Your task to perform on an android device: turn off airplane mode Image 0: 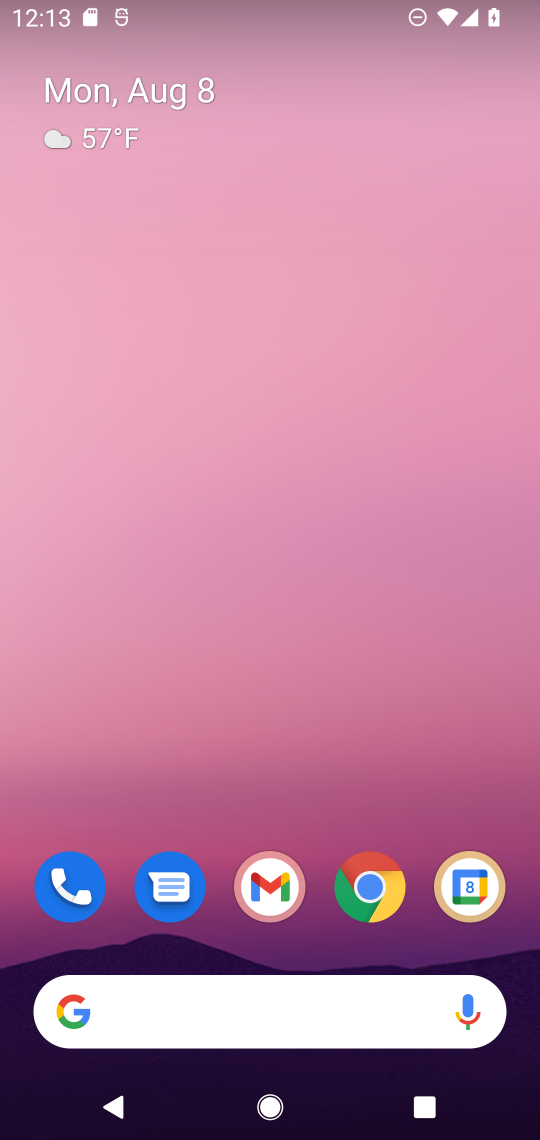
Step 0: drag from (295, 808) to (270, 81)
Your task to perform on an android device: turn off airplane mode Image 1: 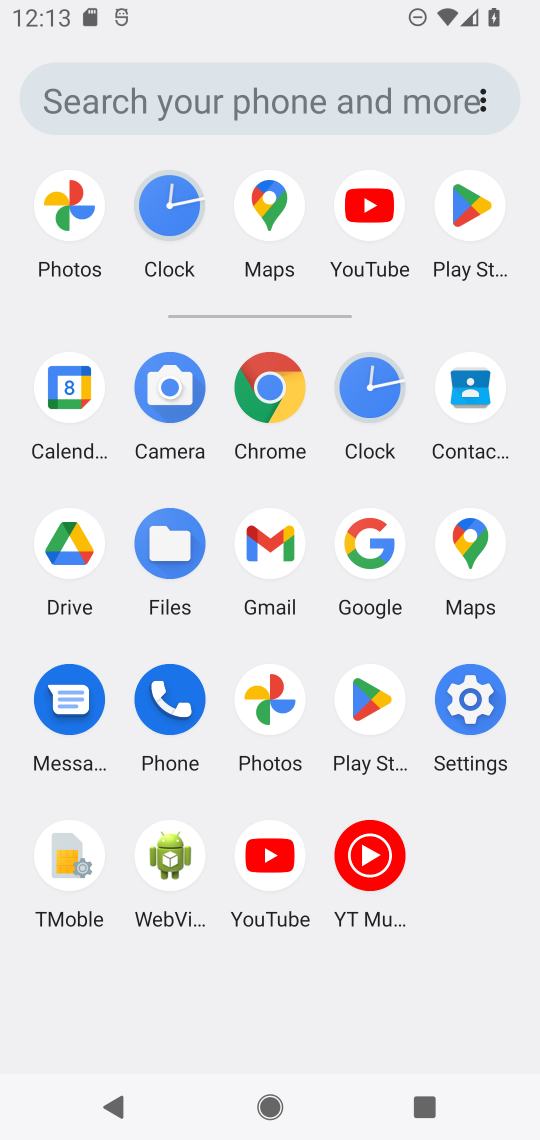
Step 1: click (474, 694)
Your task to perform on an android device: turn off airplane mode Image 2: 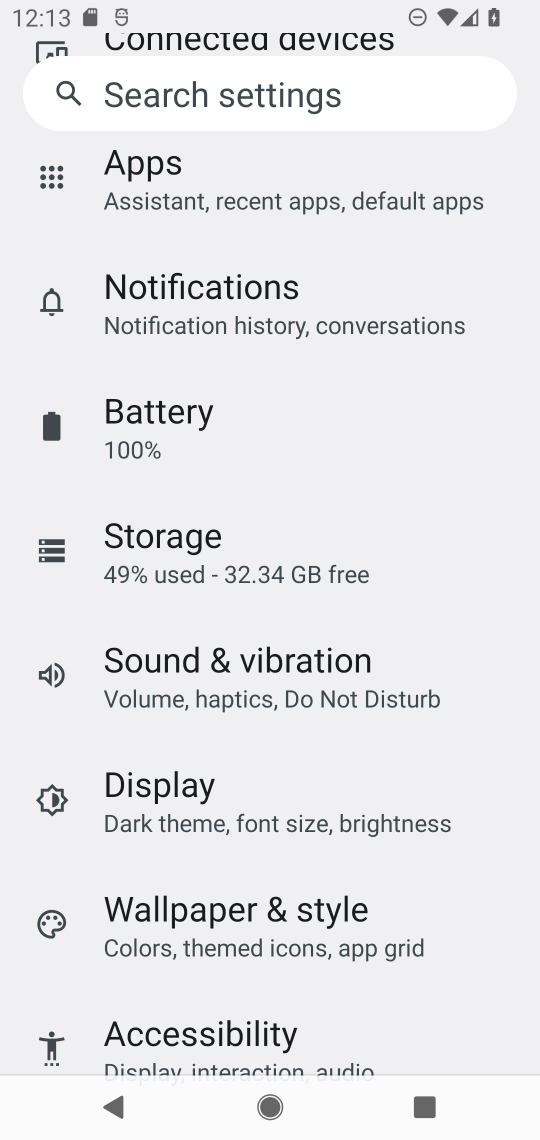
Step 2: drag from (374, 378) to (279, 1136)
Your task to perform on an android device: turn off airplane mode Image 3: 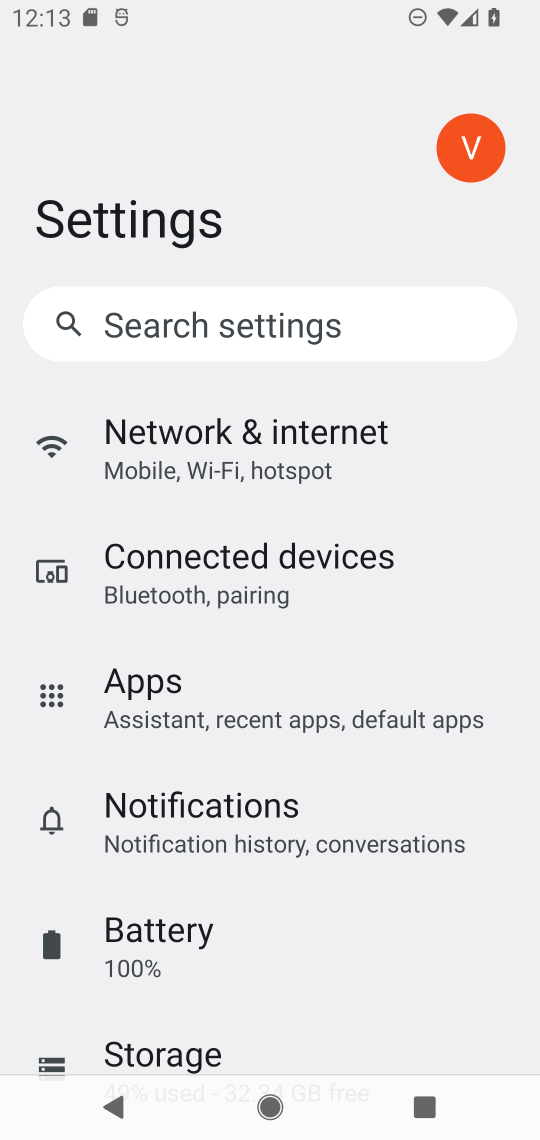
Step 3: click (247, 434)
Your task to perform on an android device: turn off airplane mode Image 4: 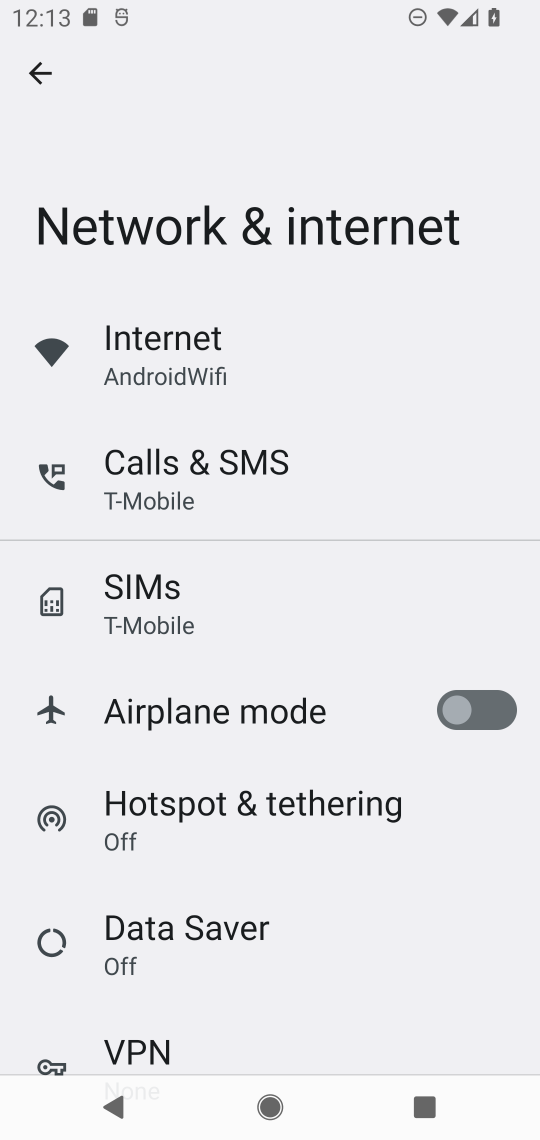
Step 4: task complete